Your task to perform on an android device: Look up the best rated coffee table on Ikea Image 0: 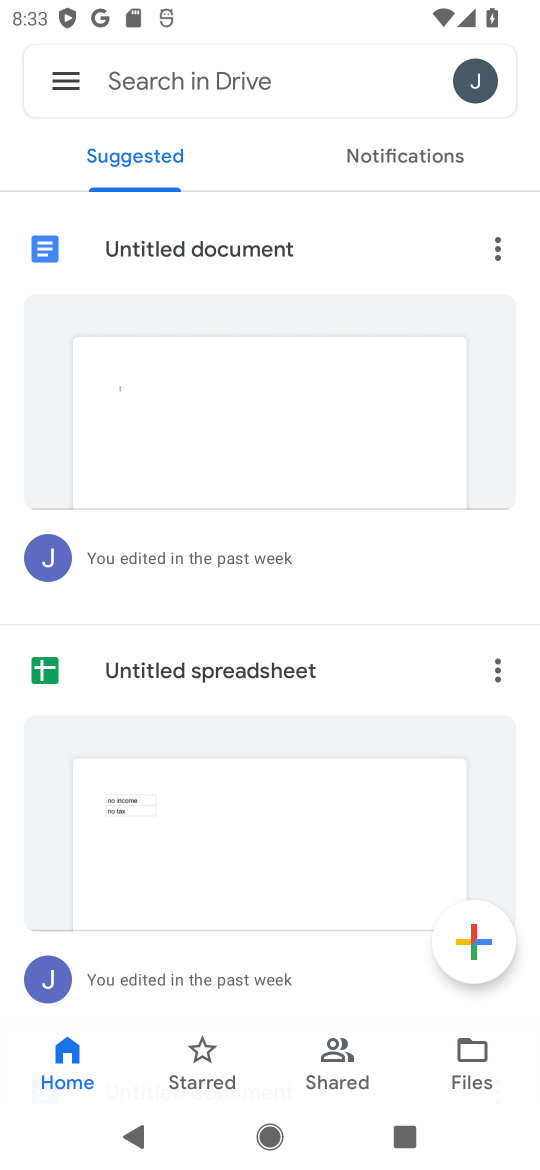
Step 0: press home button
Your task to perform on an android device: Look up the best rated coffee table on Ikea Image 1: 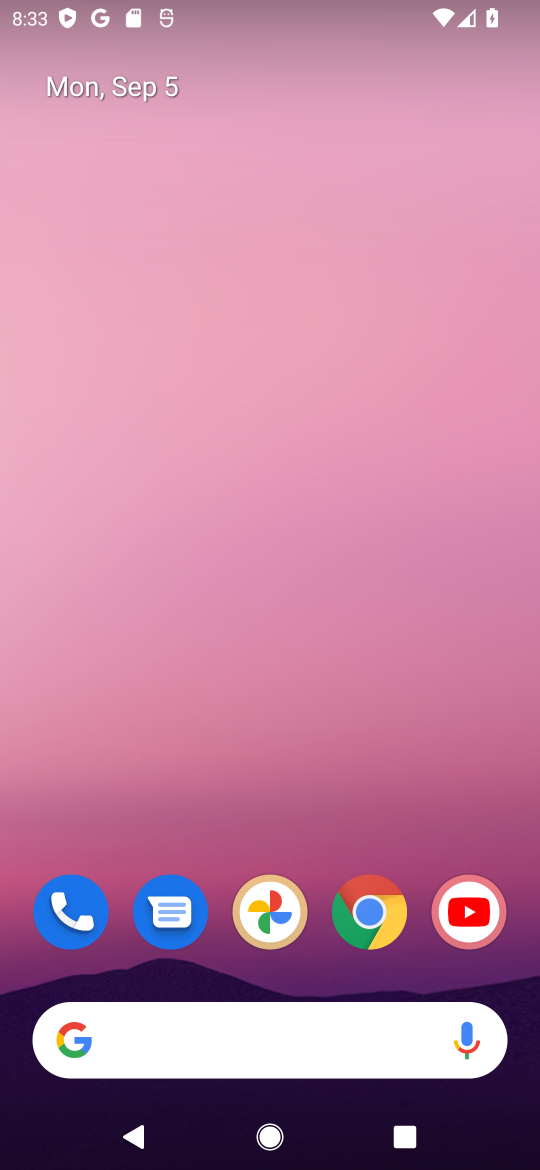
Step 1: click (369, 903)
Your task to perform on an android device: Look up the best rated coffee table on Ikea Image 2: 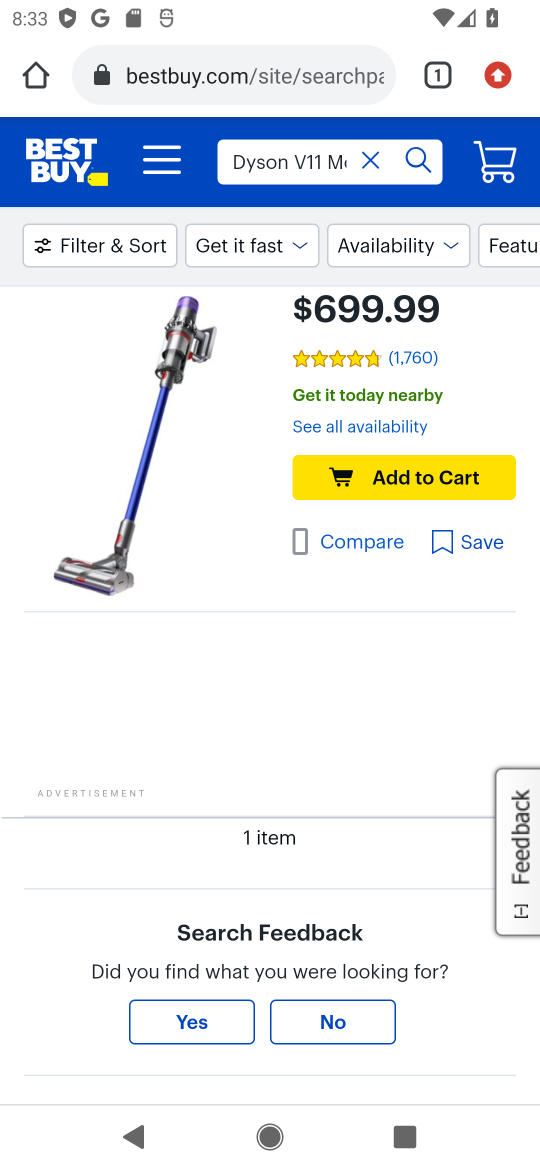
Step 2: click (292, 73)
Your task to perform on an android device: Look up the best rated coffee table on Ikea Image 3: 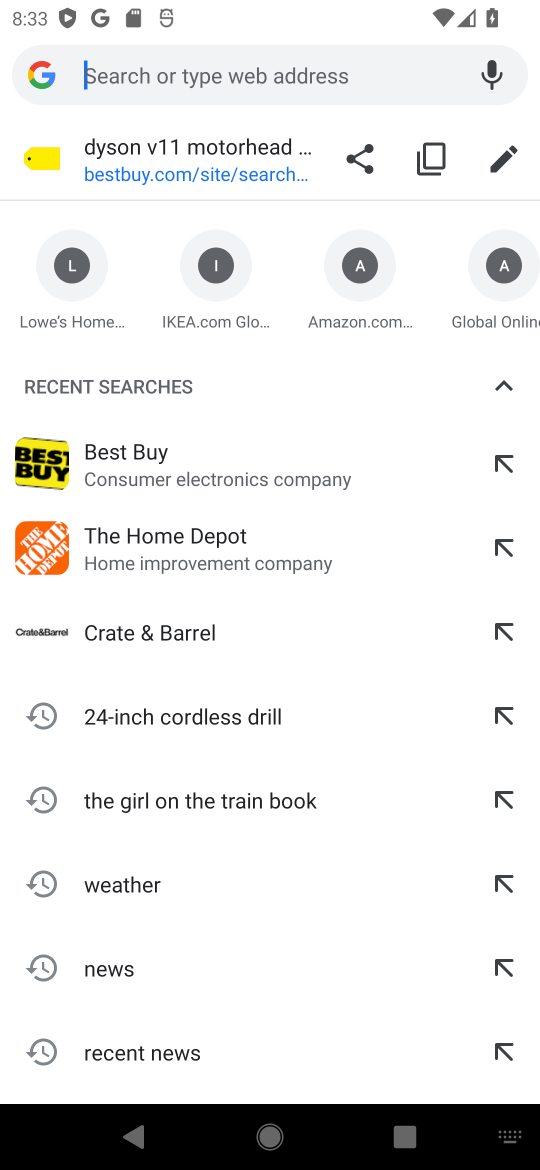
Step 3: type "Ikea"
Your task to perform on an android device: Look up the best rated coffee table on Ikea Image 4: 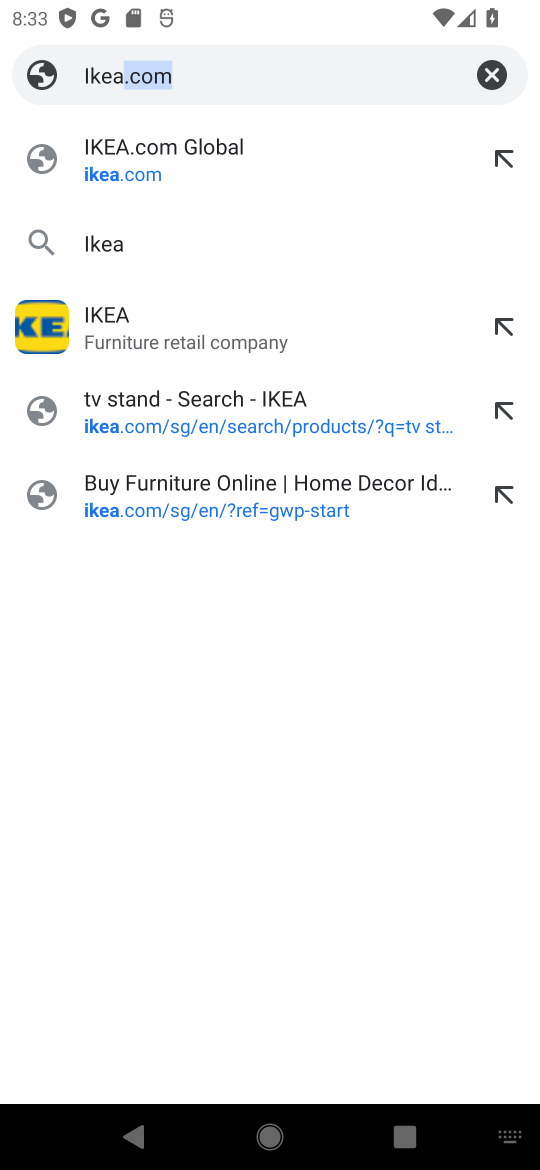
Step 4: press enter
Your task to perform on an android device: Look up the best rated coffee table on Ikea Image 5: 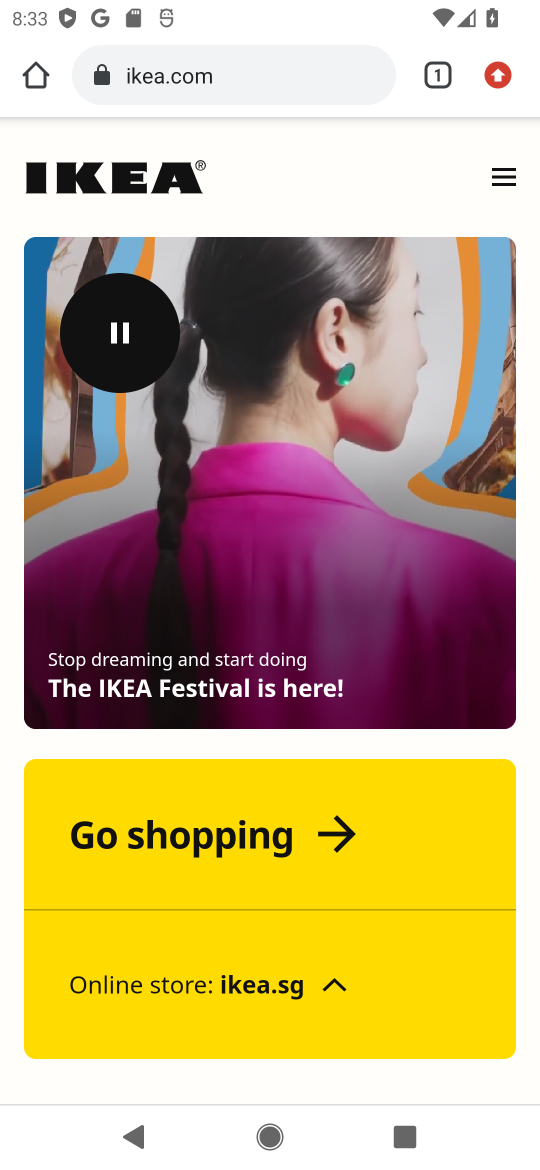
Step 5: click (311, 869)
Your task to perform on an android device: Look up the best rated coffee table on Ikea Image 6: 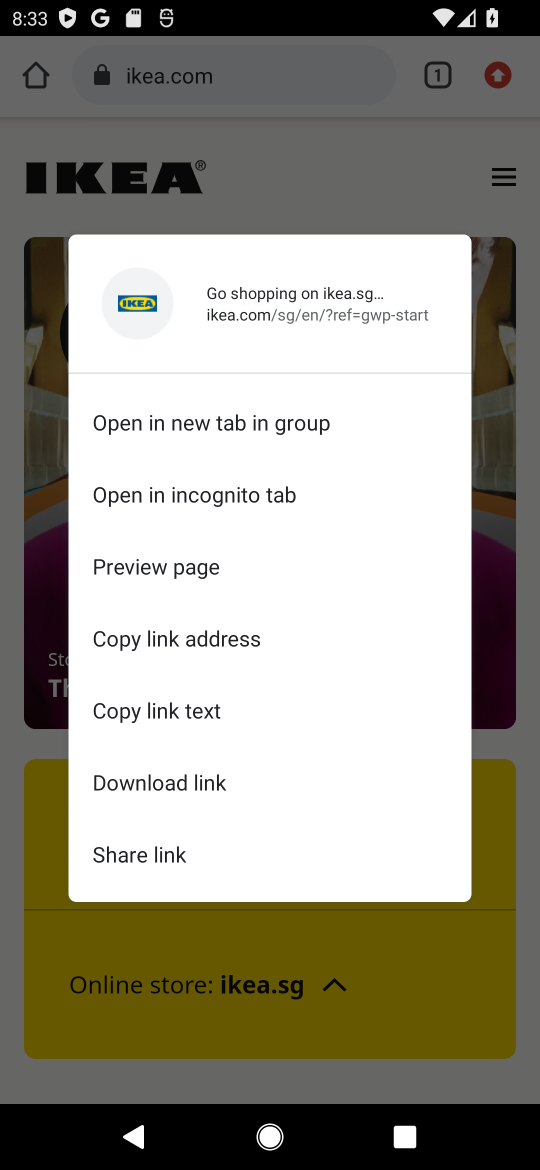
Step 6: click (299, 953)
Your task to perform on an android device: Look up the best rated coffee table on Ikea Image 7: 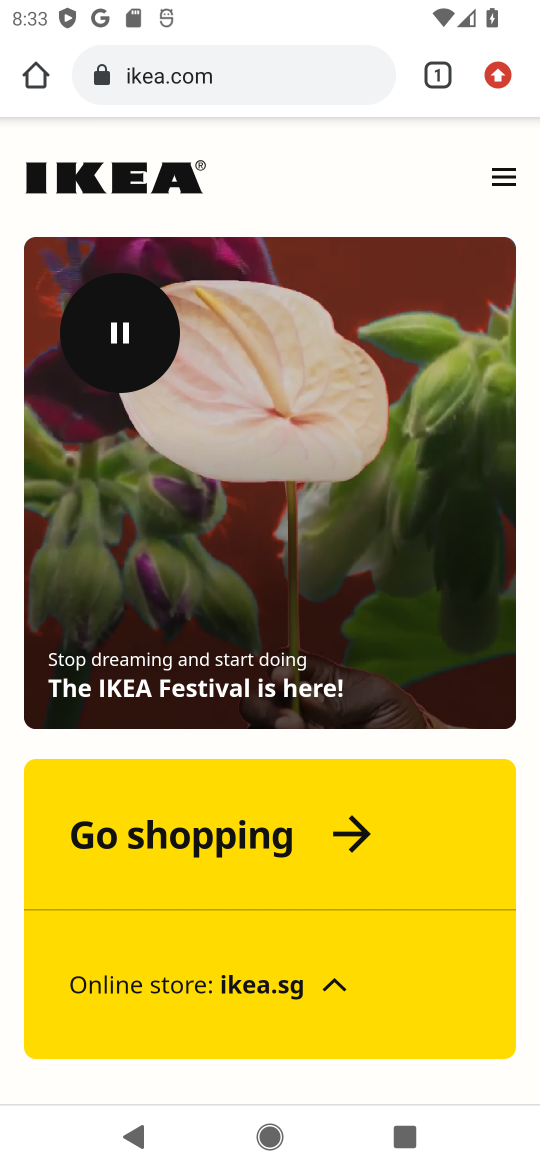
Step 7: click (187, 833)
Your task to perform on an android device: Look up the best rated coffee table on Ikea Image 8: 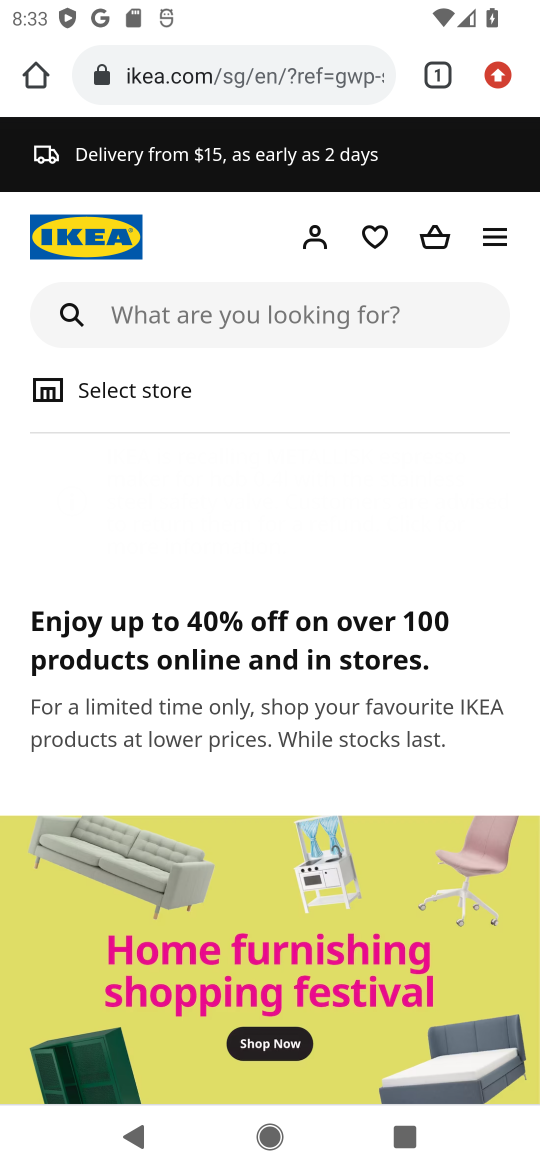
Step 8: click (216, 310)
Your task to perform on an android device: Look up the best rated coffee table on Ikea Image 9: 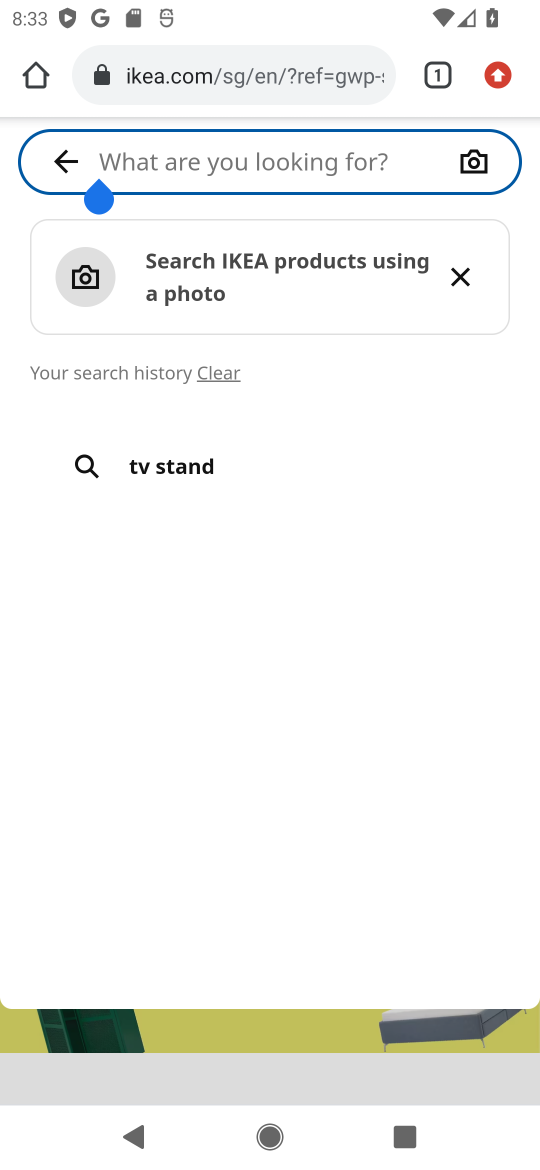
Step 9: press enter
Your task to perform on an android device: Look up the best rated coffee table on Ikea Image 10: 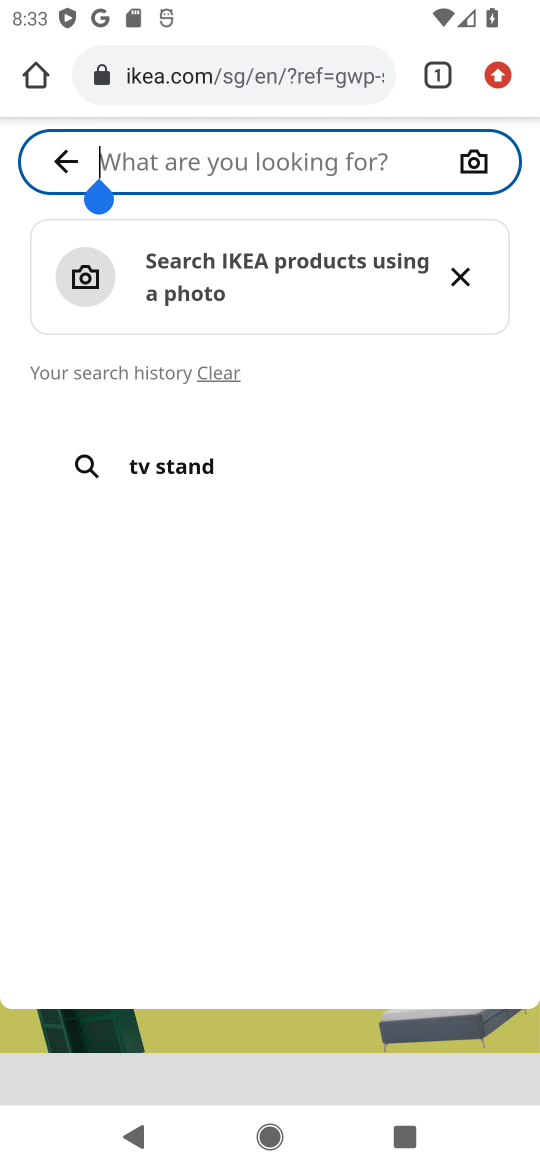
Step 10: type "coffee table"
Your task to perform on an android device: Look up the best rated coffee table on Ikea Image 11: 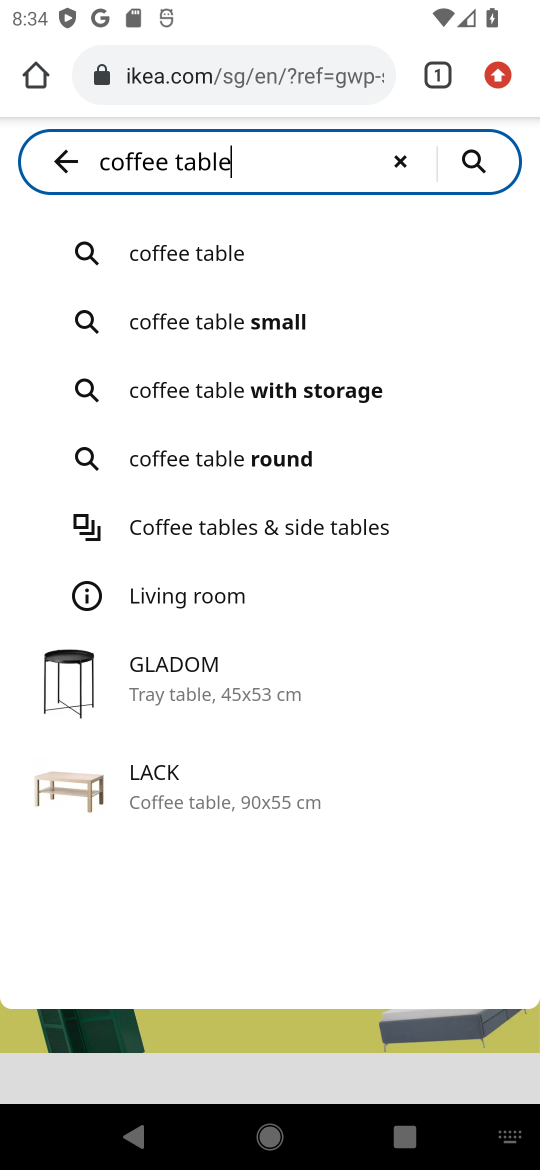
Step 11: press enter
Your task to perform on an android device: Look up the best rated coffee table on Ikea Image 12: 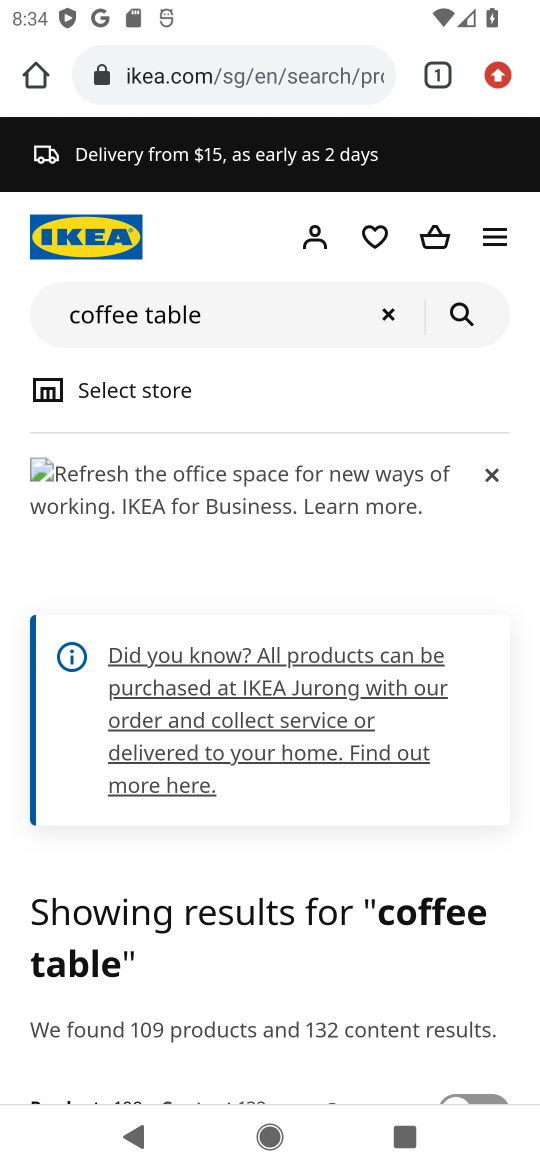
Step 12: drag from (250, 813) to (233, 443)
Your task to perform on an android device: Look up the best rated coffee table on Ikea Image 13: 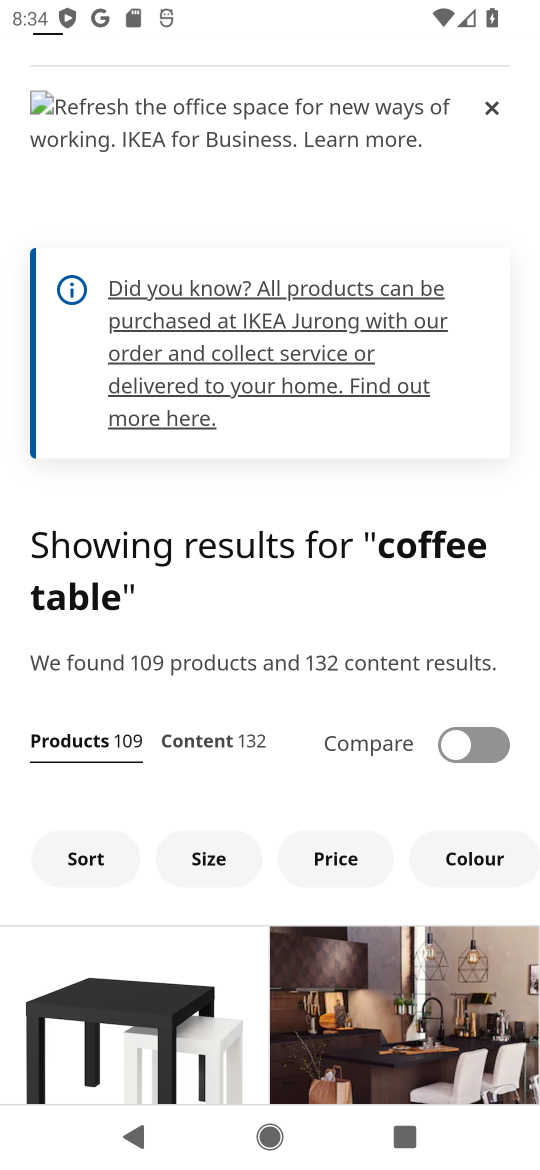
Step 13: click (76, 877)
Your task to perform on an android device: Look up the best rated coffee table on Ikea Image 14: 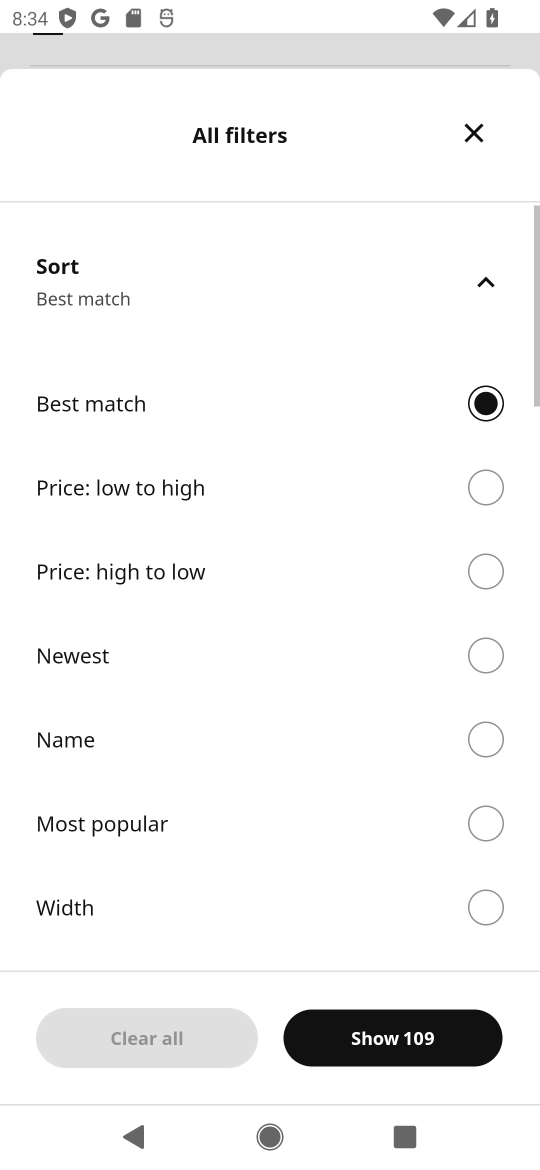
Step 14: drag from (256, 903) to (247, 376)
Your task to perform on an android device: Look up the best rated coffee table on Ikea Image 15: 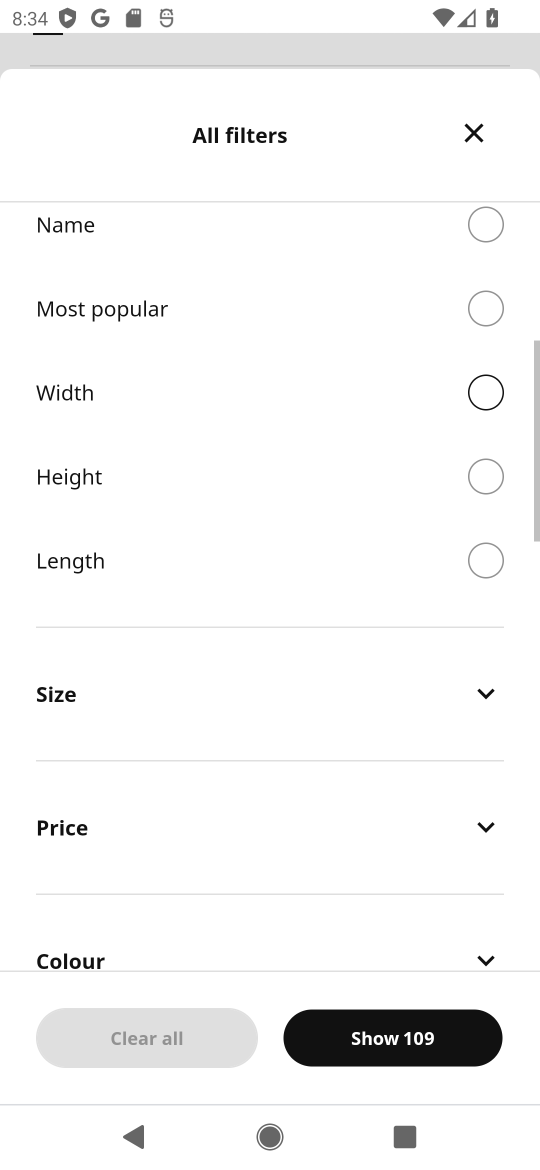
Step 15: drag from (278, 772) to (249, 292)
Your task to perform on an android device: Look up the best rated coffee table on Ikea Image 16: 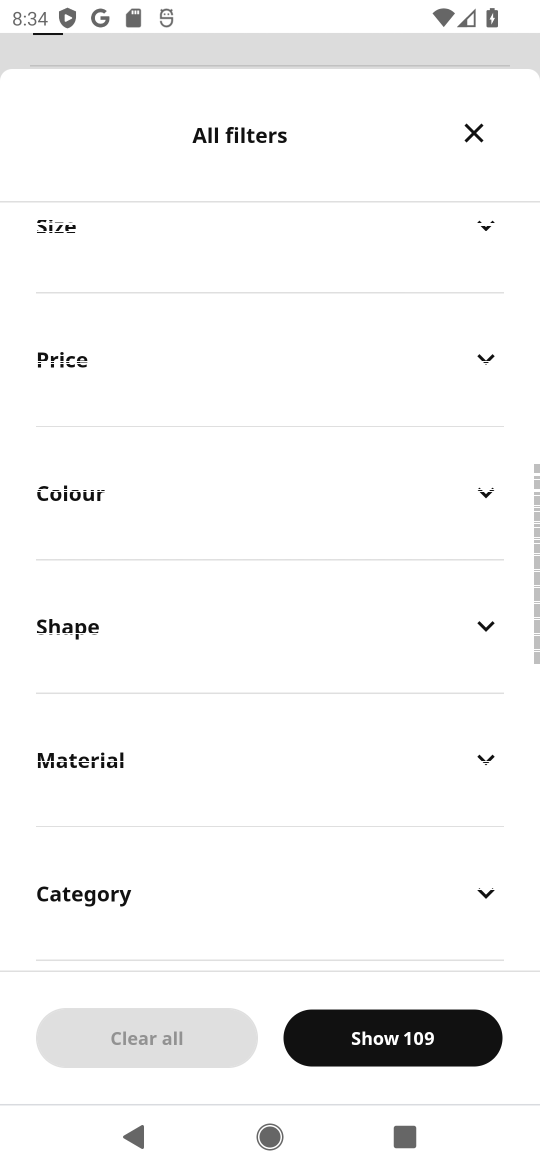
Step 16: drag from (275, 859) to (286, 380)
Your task to perform on an android device: Look up the best rated coffee table on Ikea Image 17: 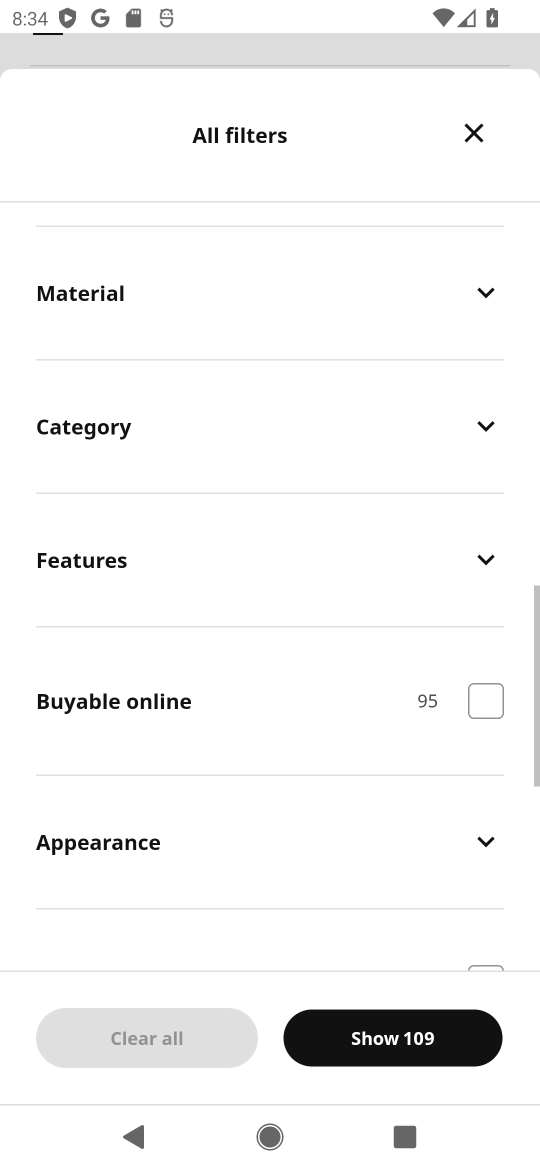
Step 17: drag from (295, 831) to (282, 393)
Your task to perform on an android device: Look up the best rated coffee table on Ikea Image 18: 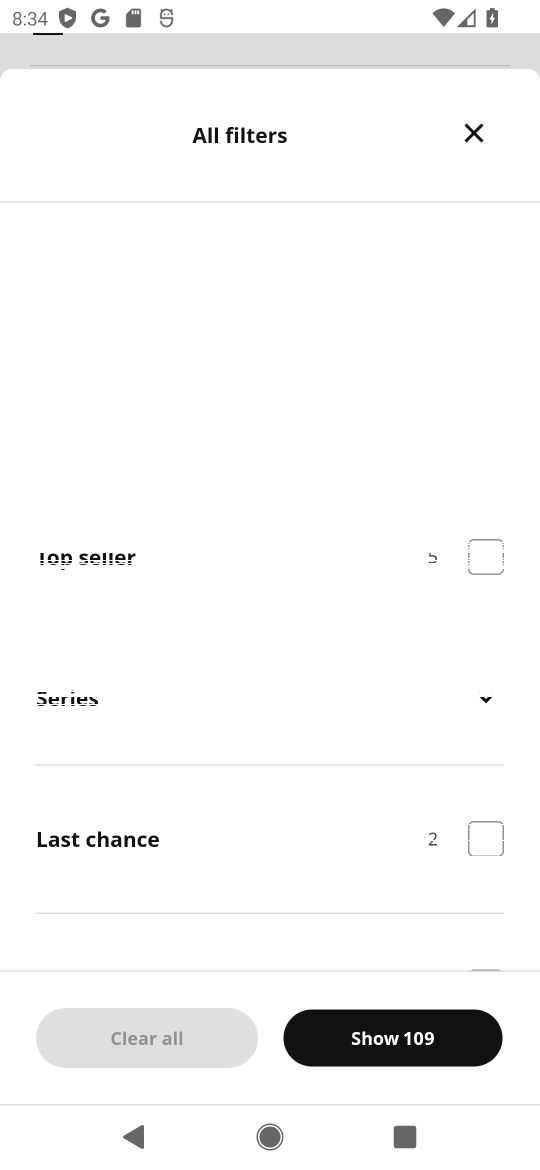
Step 18: drag from (276, 748) to (259, 388)
Your task to perform on an android device: Look up the best rated coffee table on Ikea Image 19: 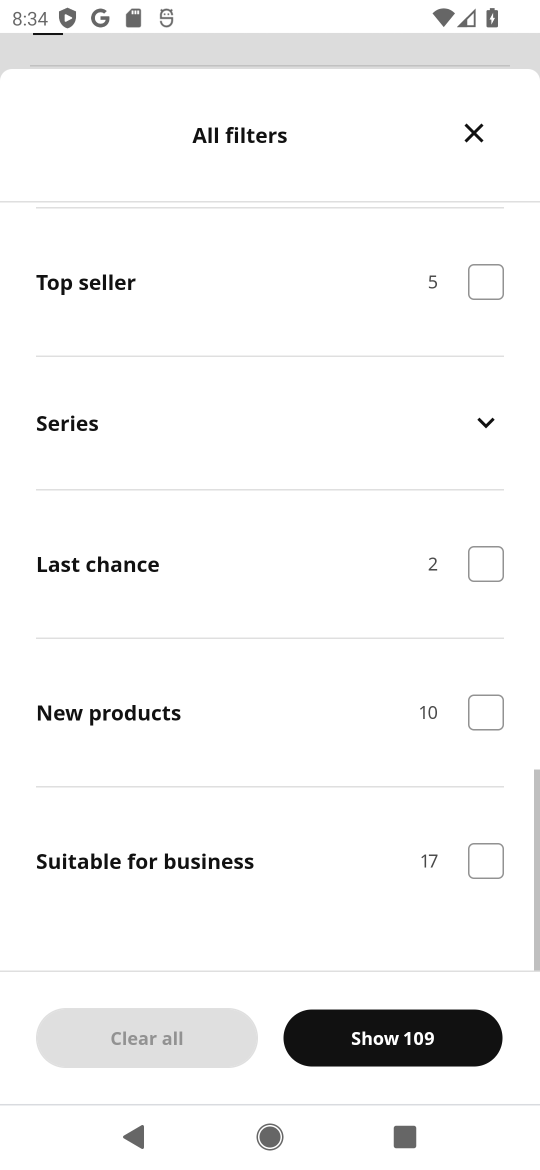
Step 19: drag from (284, 832) to (250, 388)
Your task to perform on an android device: Look up the best rated coffee table on Ikea Image 20: 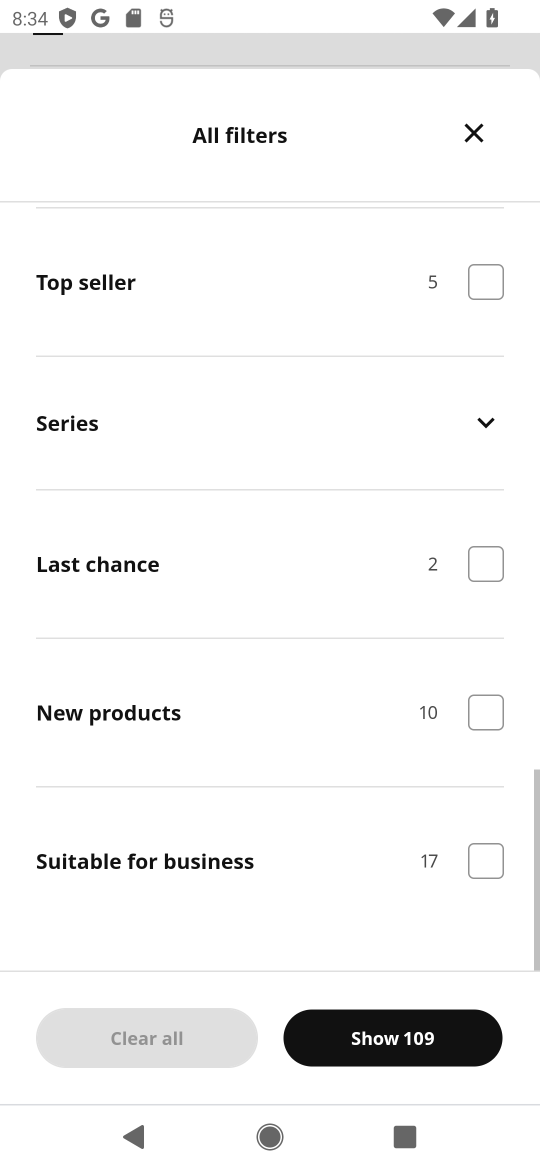
Step 20: drag from (261, 884) to (225, 338)
Your task to perform on an android device: Look up the best rated coffee table on Ikea Image 21: 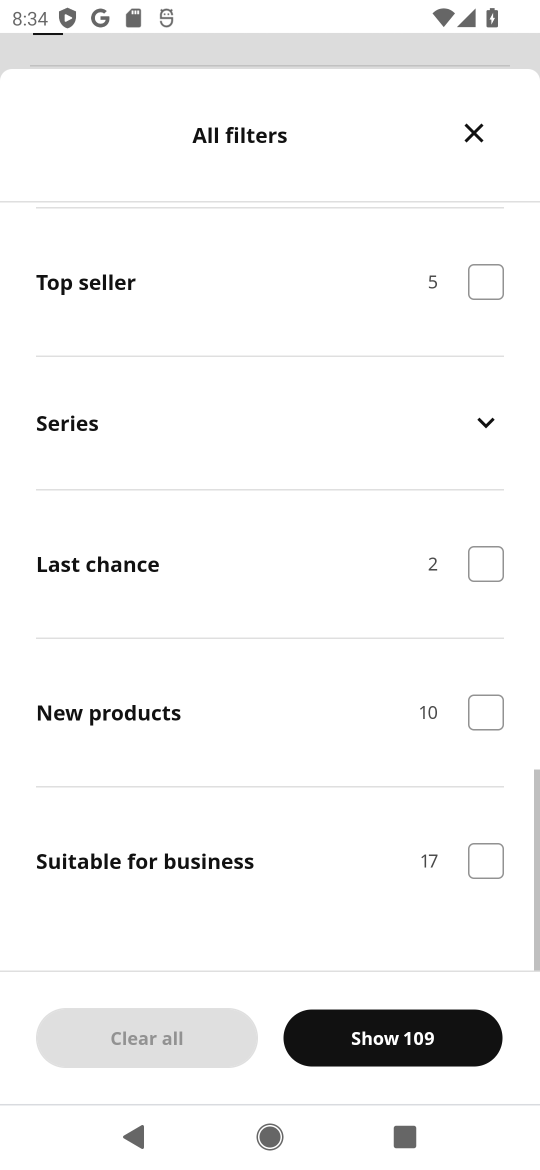
Step 21: drag from (221, 364) to (248, 662)
Your task to perform on an android device: Look up the best rated coffee table on Ikea Image 22: 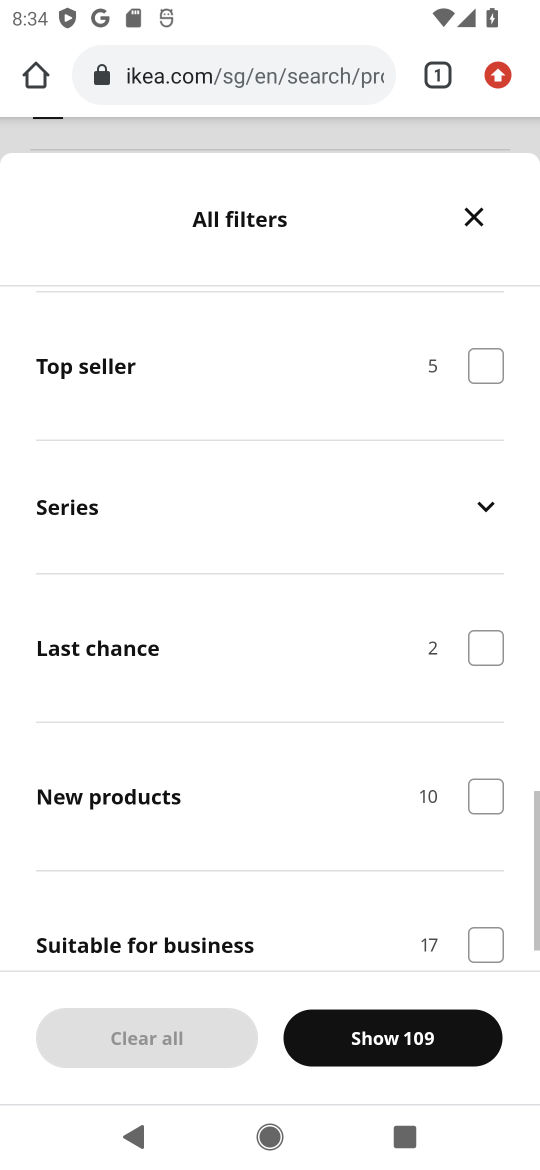
Step 22: click (159, 1052)
Your task to perform on an android device: Look up the best rated coffee table on Ikea Image 23: 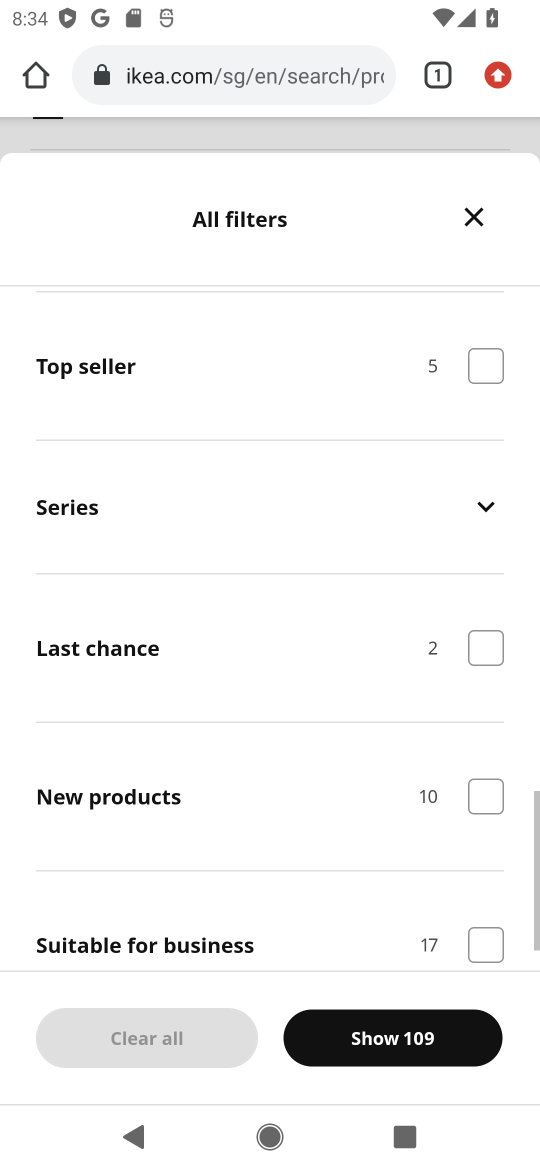
Step 23: drag from (227, 379) to (292, 977)
Your task to perform on an android device: Look up the best rated coffee table on Ikea Image 24: 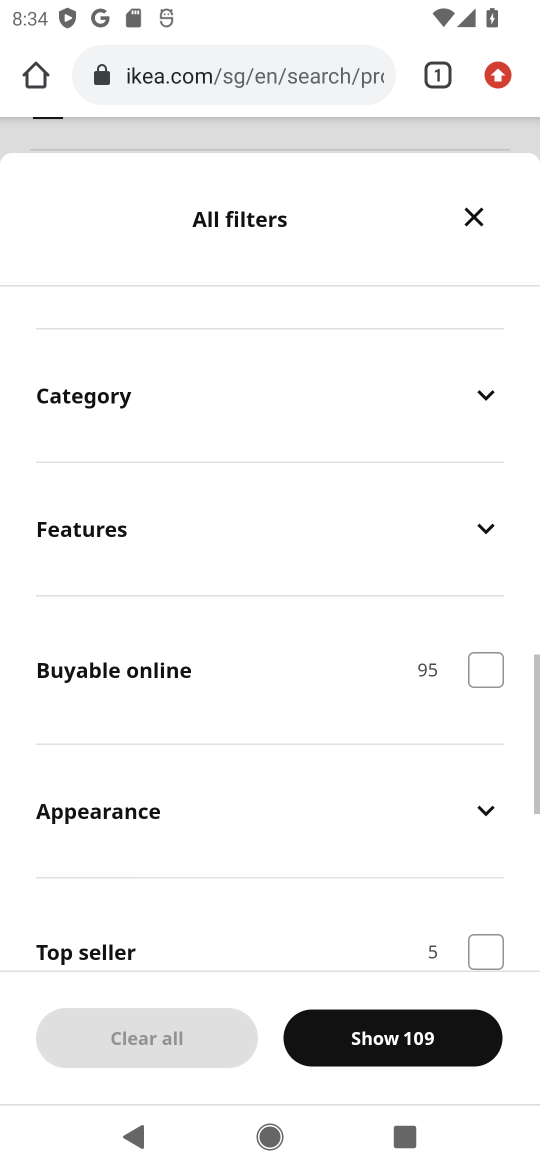
Step 24: drag from (260, 573) to (303, 830)
Your task to perform on an android device: Look up the best rated coffee table on Ikea Image 25: 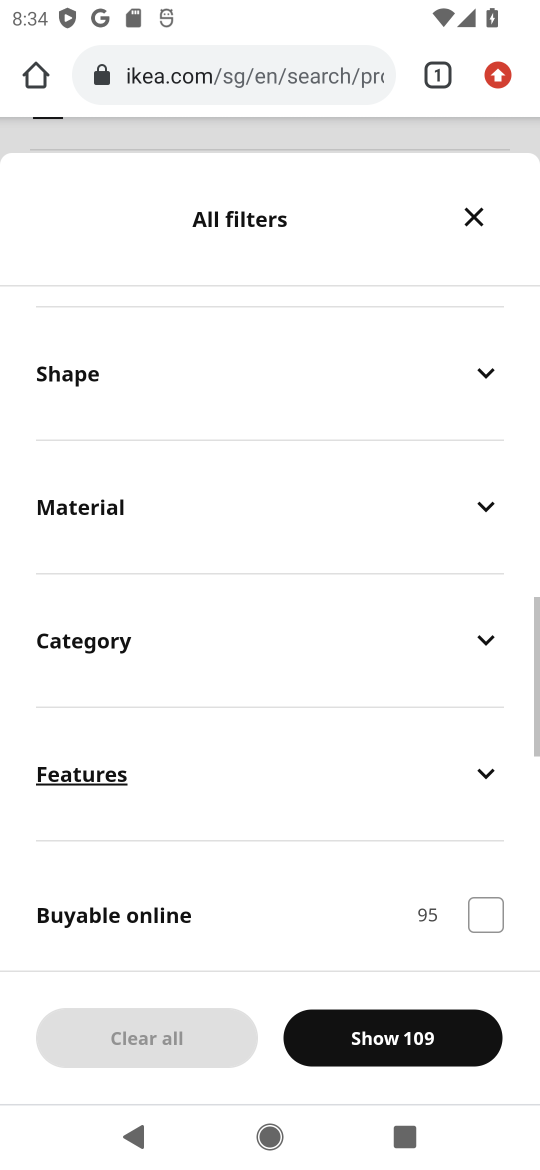
Step 25: drag from (259, 455) to (290, 855)
Your task to perform on an android device: Look up the best rated coffee table on Ikea Image 26: 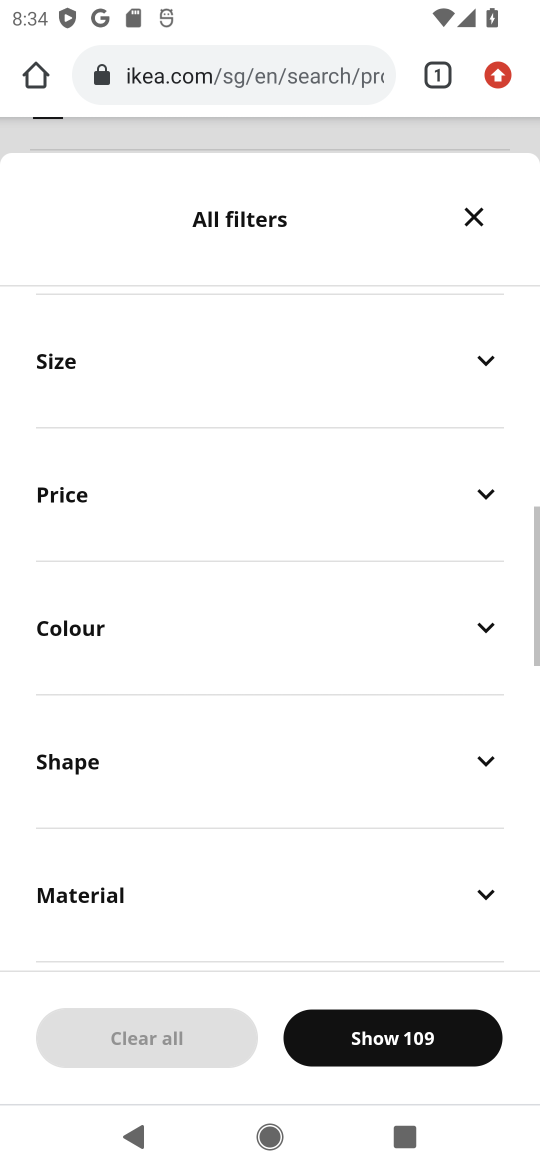
Step 26: drag from (236, 436) to (258, 802)
Your task to perform on an android device: Look up the best rated coffee table on Ikea Image 27: 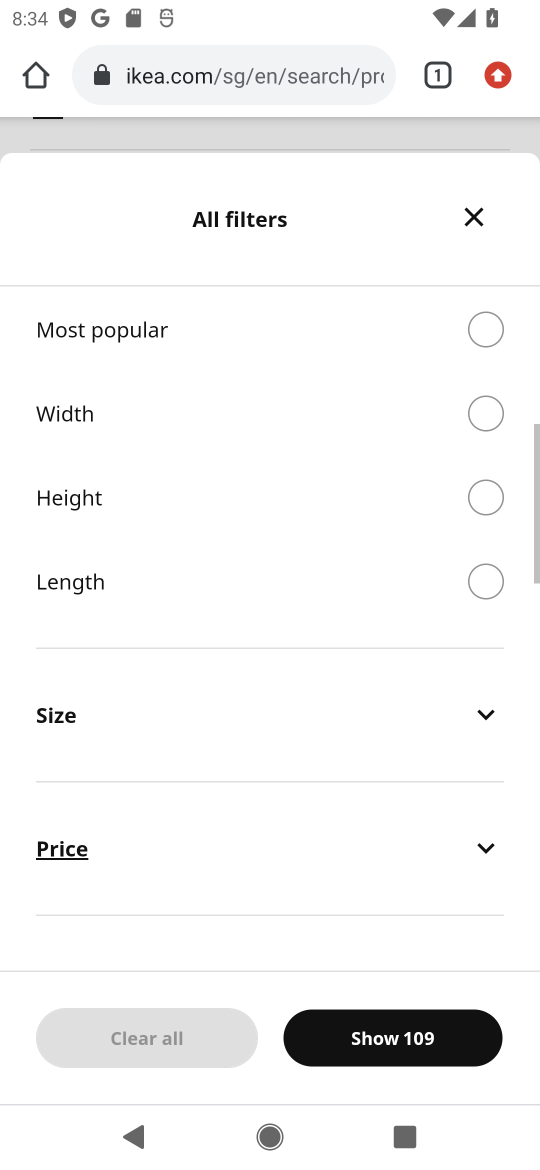
Step 27: drag from (219, 448) to (261, 813)
Your task to perform on an android device: Look up the best rated coffee table on Ikea Image 28: 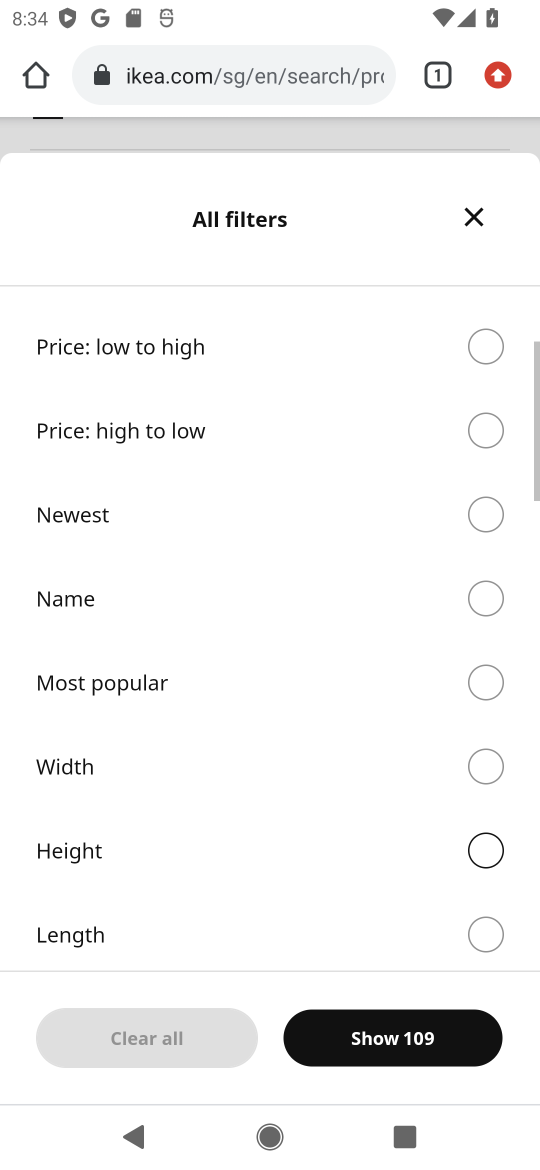
Step 28: drag from (210, 413) to (246, 805)
Your task to perform on an android device: Look up the best rated coffee table on Ikea Image 29: 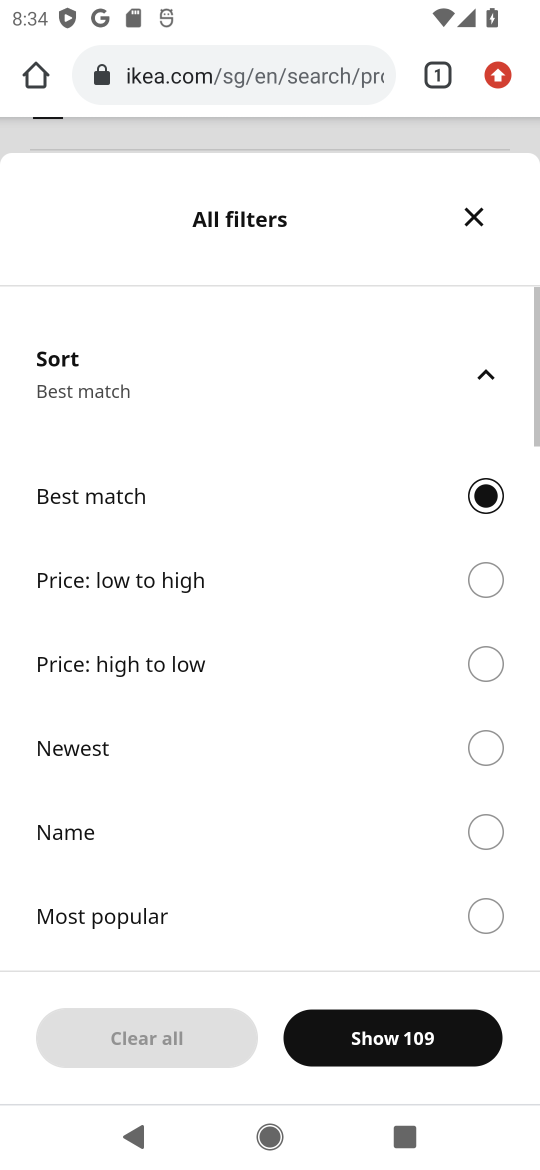
Step 29: drag from (254, 809) to (268, 298)
Your task to perform on an android device: Look up the best rated coffee table on Ikea Image 30: 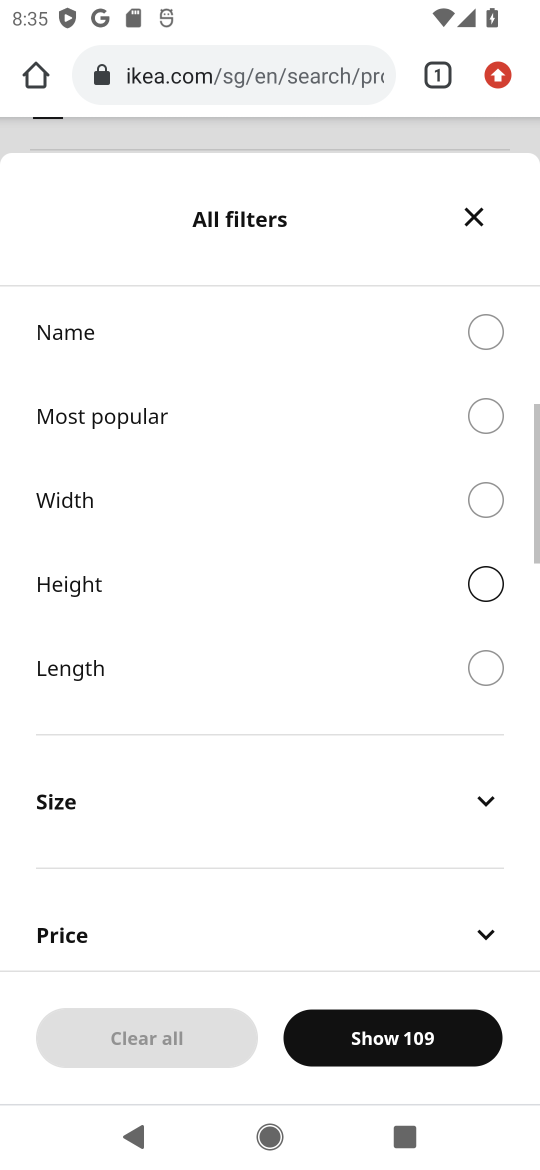
Step 30: drag from (275, 849) to (258, 348)
Your task to perform on an android device: Look up the best rated coffee table on Ikea Image 31: 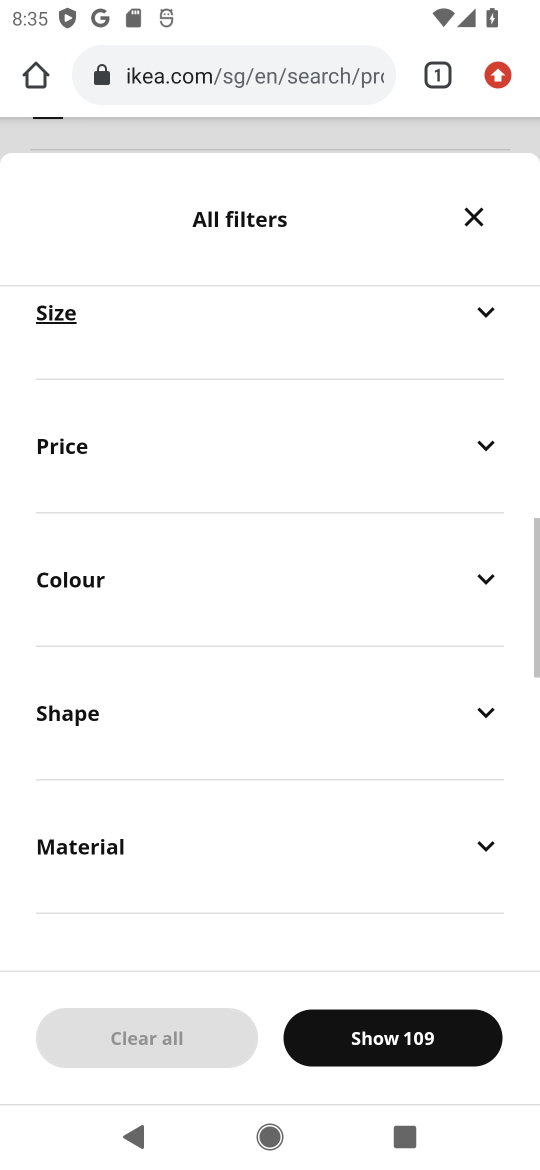
Step 31: drag from (192, 861) to (194, 369)
Your task to perform on an android device: Look up the best rated coffee table on Ikea Image 32: 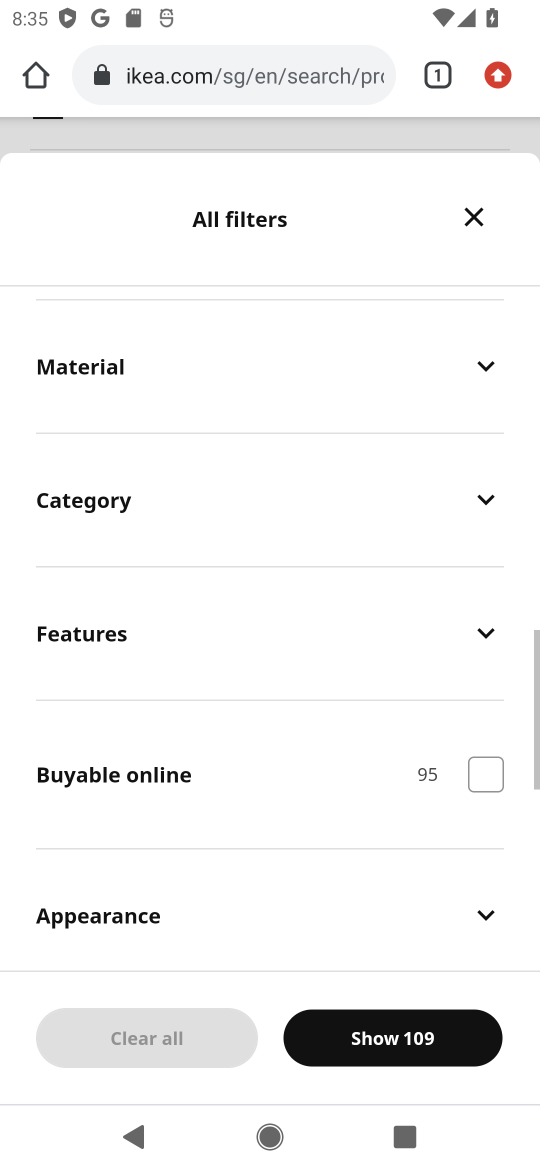
Step 32: drag from (182, 745) to (184, 370)
Your task to perform on an android device: Look up the best rated coffee table on Ikea Image 33: 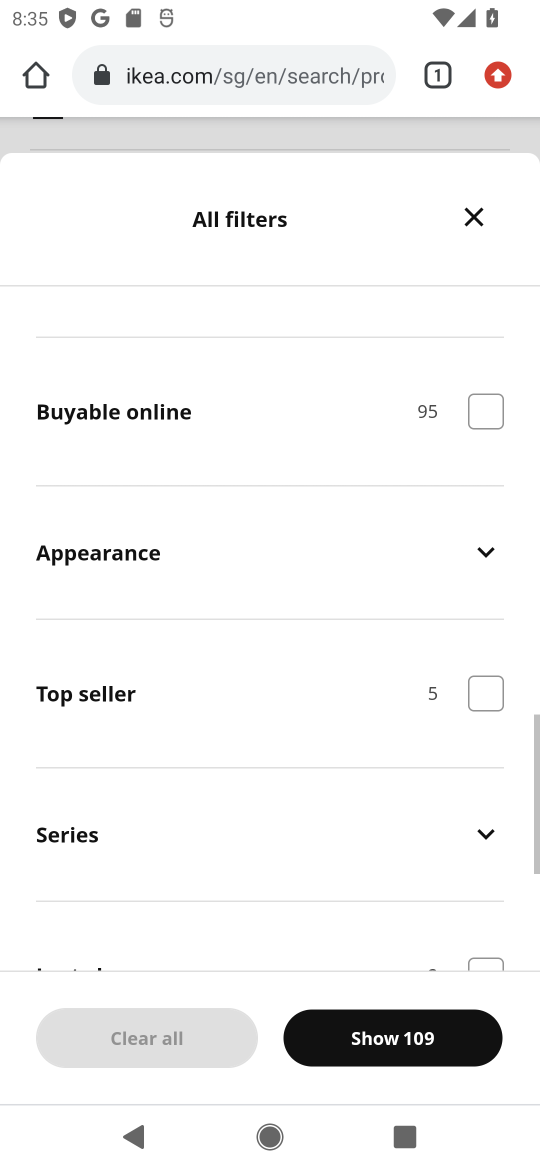
Step 33: drag from (199, 846) to (196, 387)
Your task to perform on an android device: Look up the best rated coffee table on Ikea Image 34: 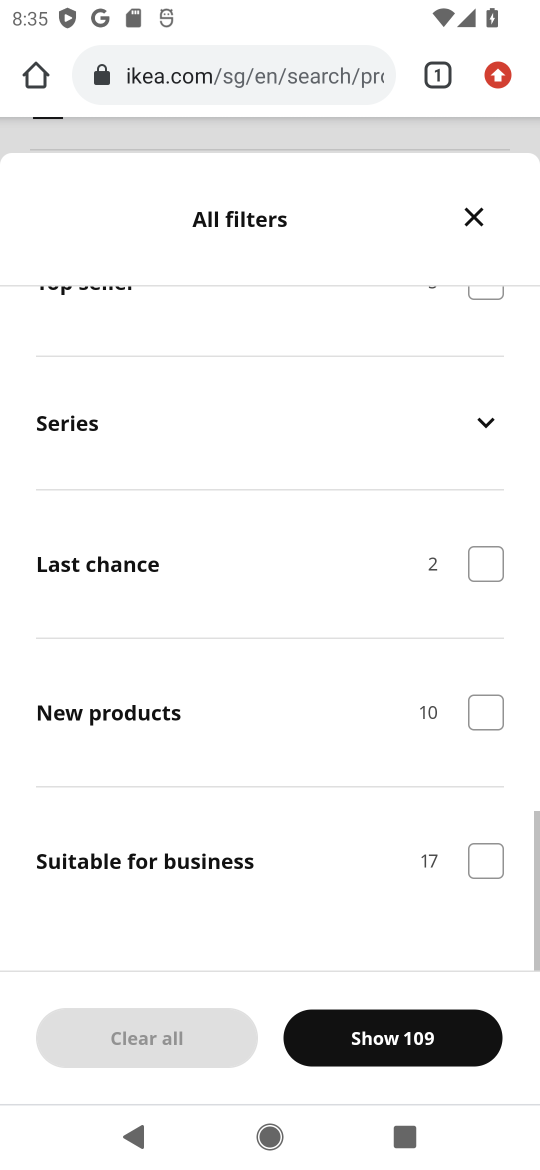
Step 34: drag from (134, 783) to (159, 451)
Your task to perform on an android device: Look up the best rated coffee table on Ikea Image 35: 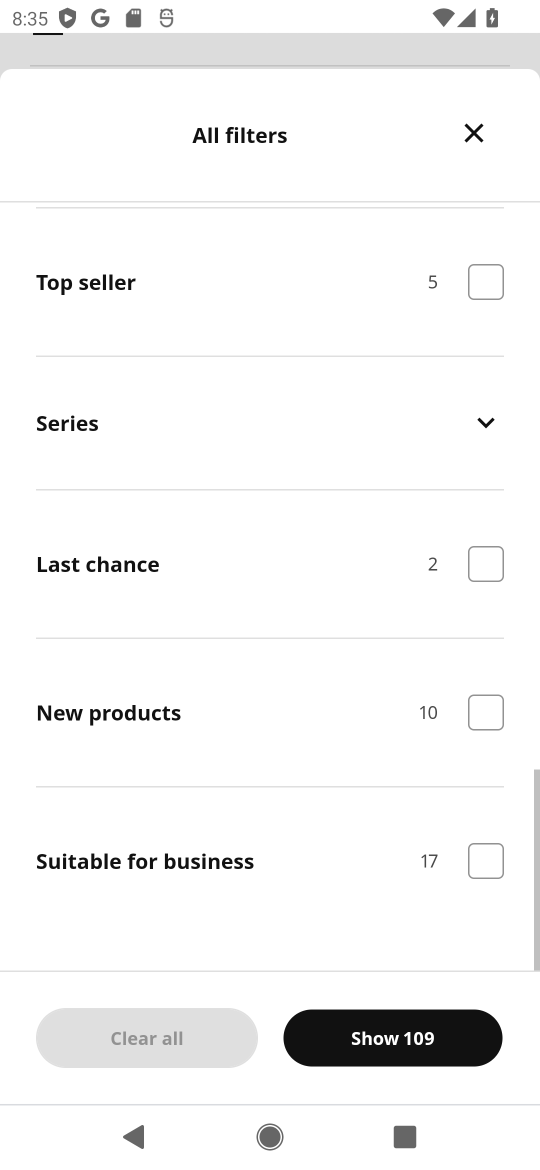
Step 35: drag from (215, 794) to (231, 574)
Your task to perform on an android device: Look up the best rated coffee table on Ikea Image 36: 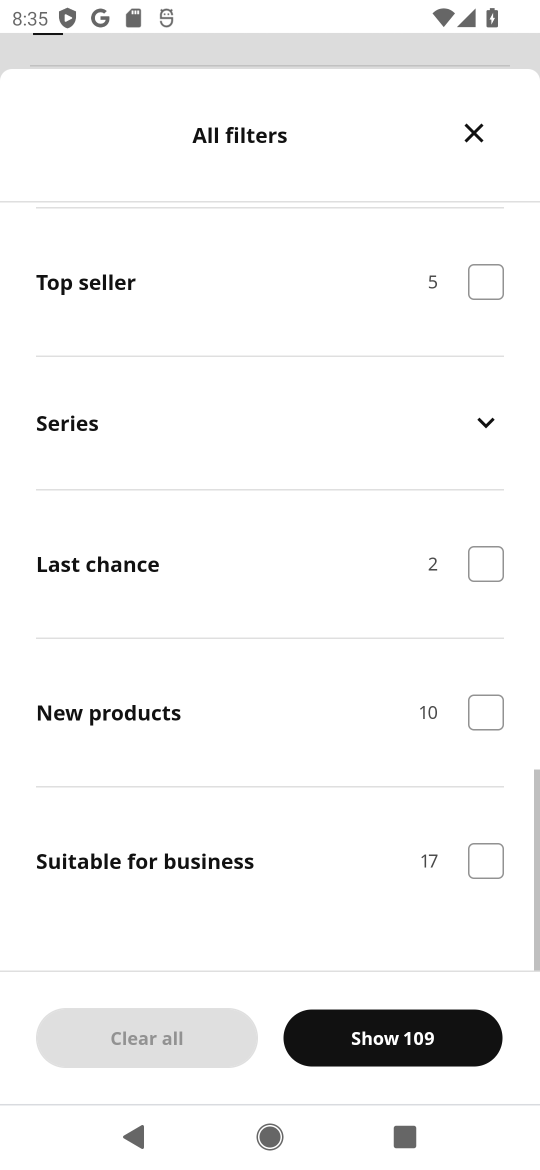
Step 36: drag from (284, 902) to (272, 561)
Your task to perform on an android device: Look up the best rated coffee table on Ikea Image 37: 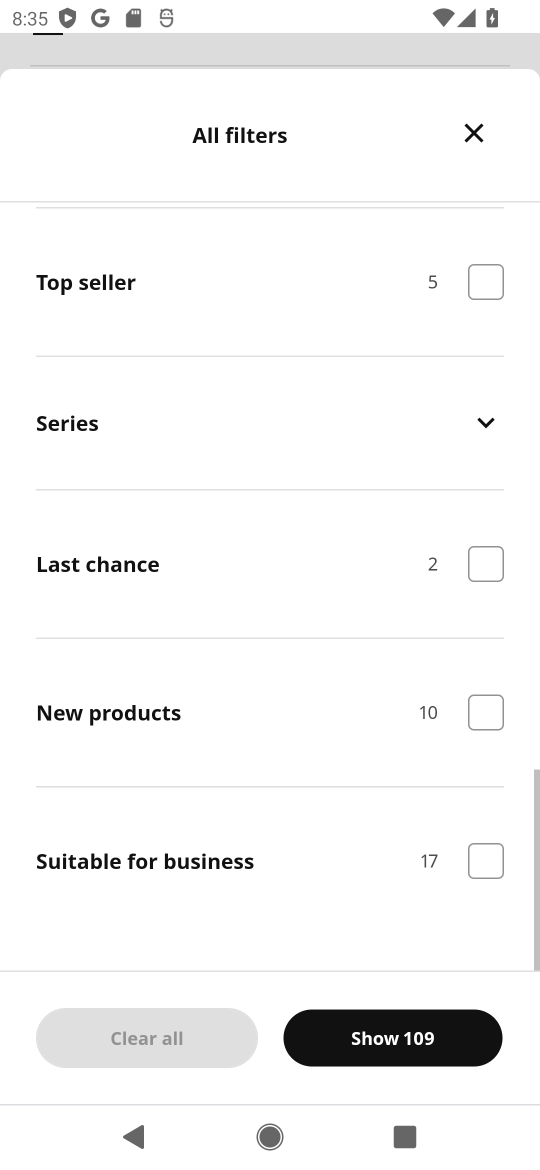
Step 37: click (472, 136)
Your task to perform on an android device: Look up the best rated coffee table on Ikea Image 38: 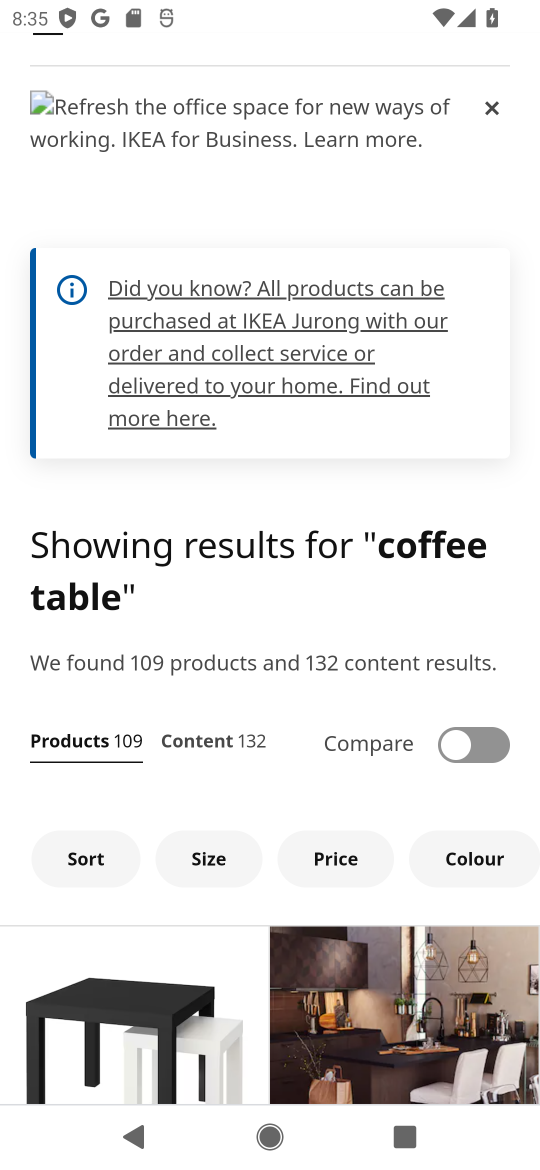
Step 38: click (474, 356)
Your task to perform on an android device: Look up the best rated coffee table on Ikea Image 39: 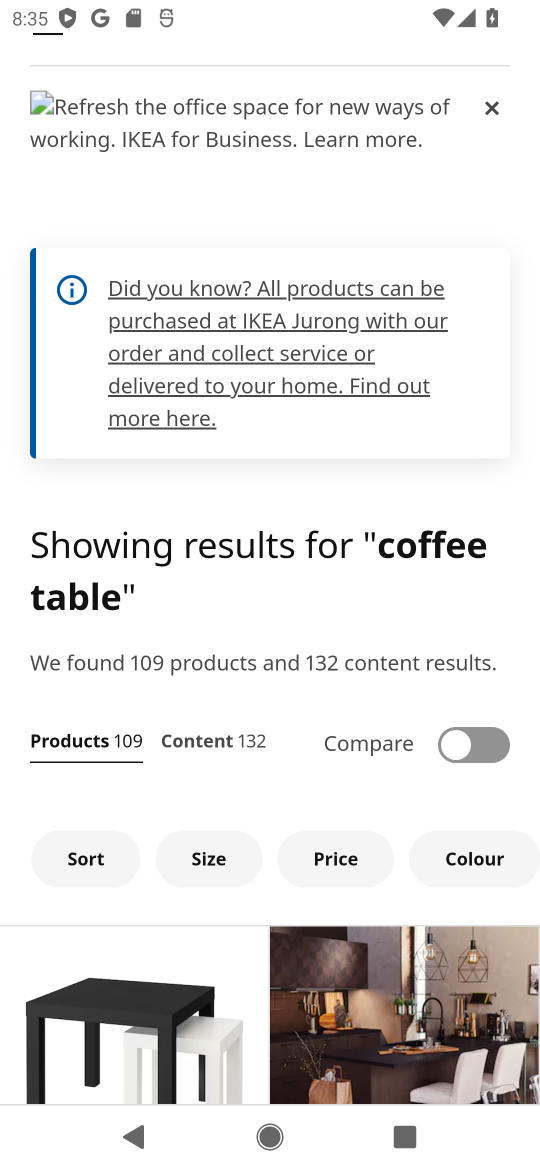
Step 39: drag from (252, 900) to (252, 823)
Your task to perform on an android device: Look up the best rated coffee table on Ikea Image 40: 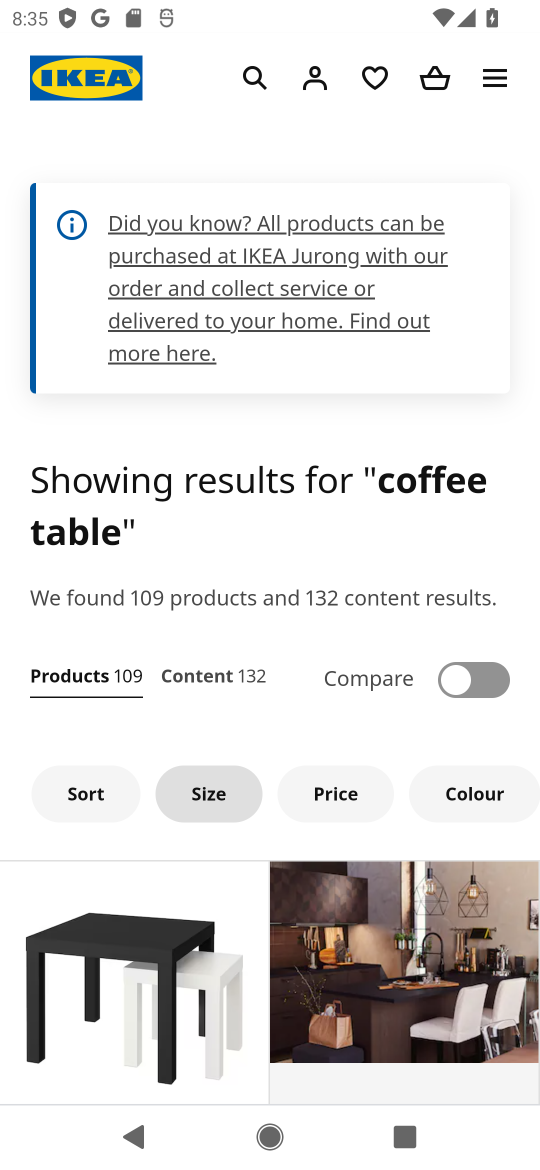
Step 40: click (245, 77)
Your task to perform on an android device: Look up the best rated coffee table on Ikea Image 41: 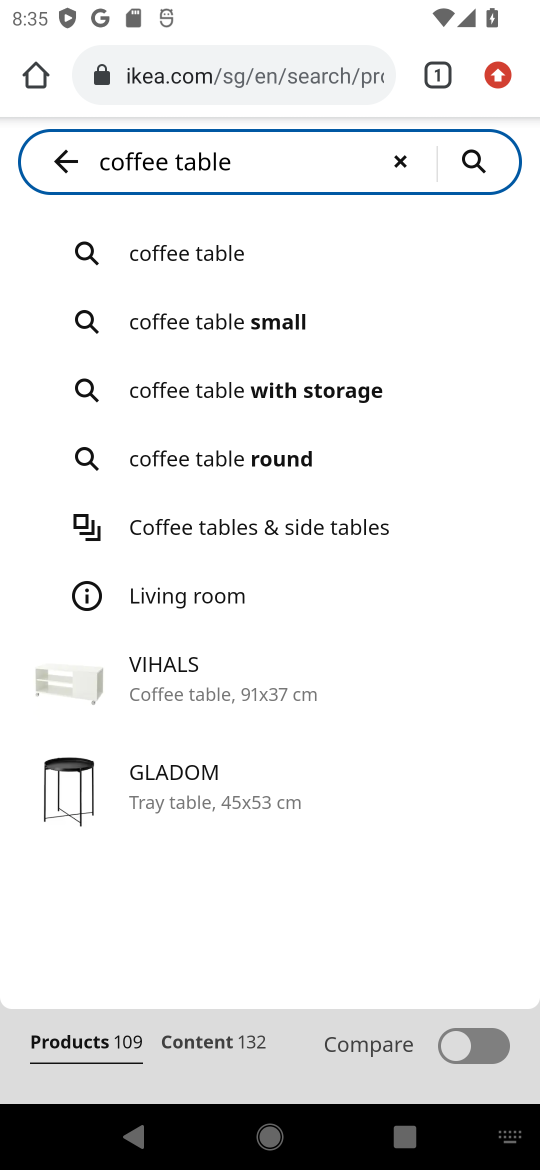
Step 41: click (100, 165)
Your task to perform on an android device: Look up the best rated coffee table on Ikea Image 42: 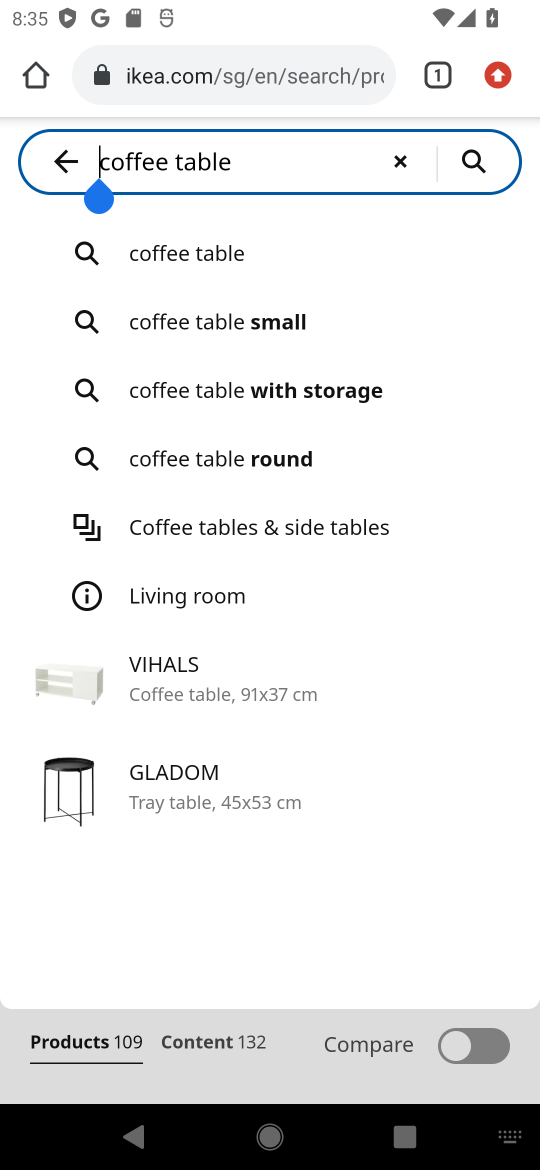
Step 42: type "best rated "
Your task to perform on an android device: Look up the best rated coffee table on Ikea Image 43: 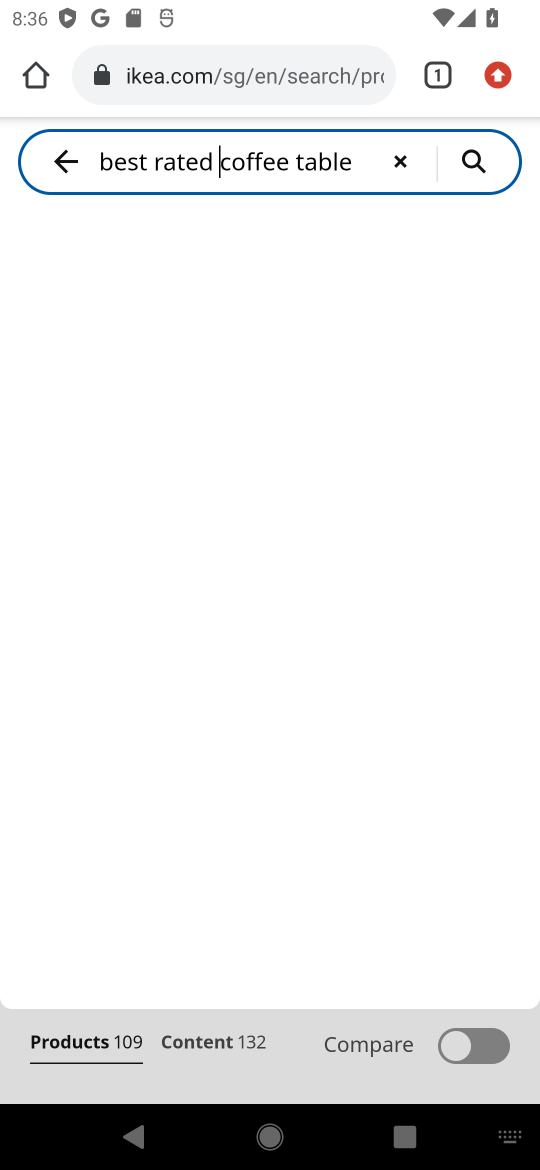
Step 43: press enter
Your task to perform on an android device: Look up the best rated coffee table on Ikea Image 44: 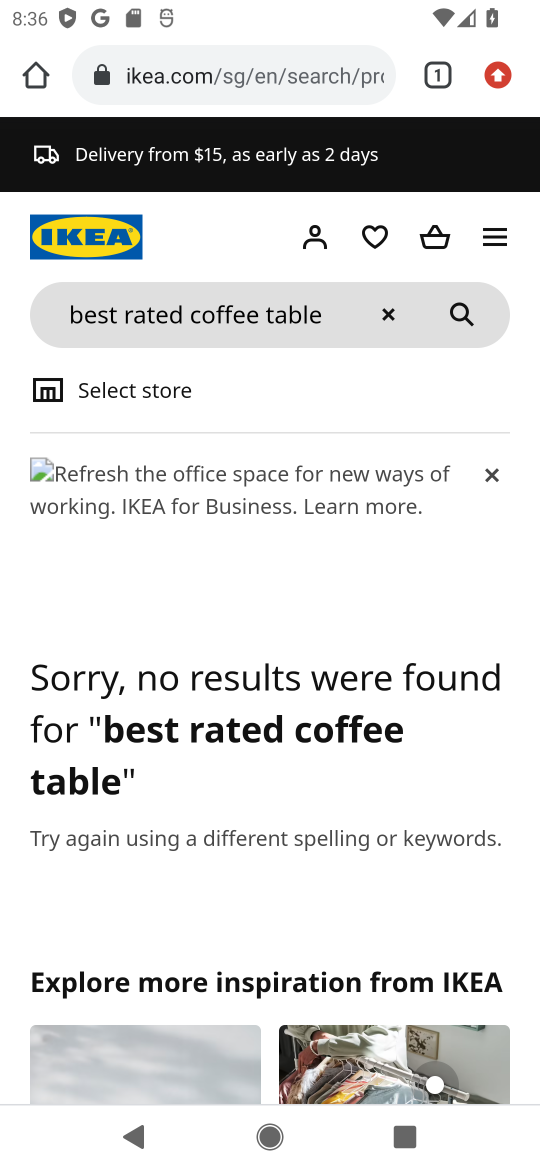
Step 44: task complete